Your task to perform on an android device: turn off translation in the chrome app Image 0: 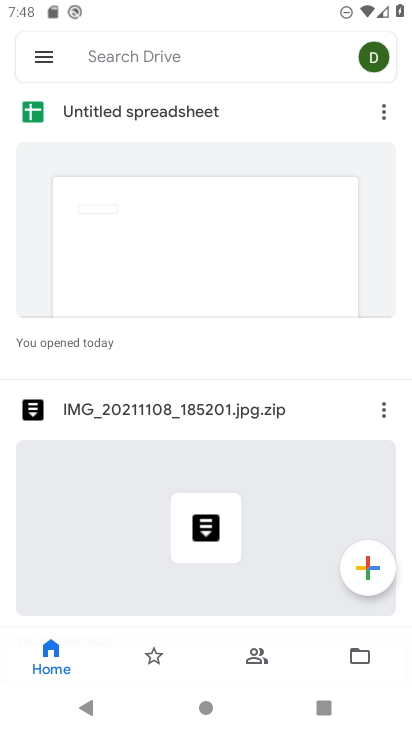
Step 0: press home button
Your task to perform on an android device: turn off translation in the chrome app Image 1: 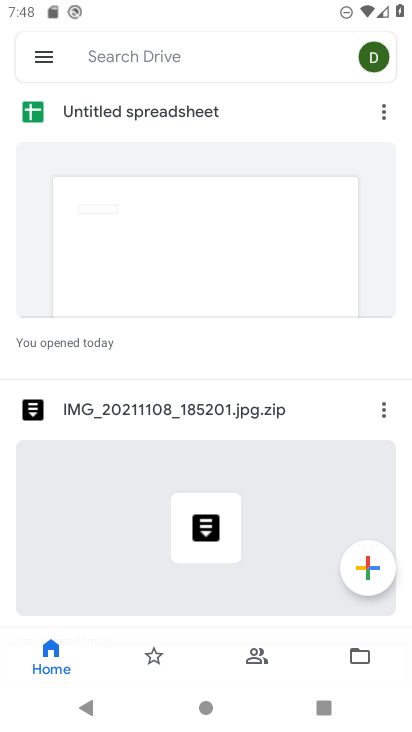
Step 1: press home button
Your task to perform on an android device: turn off translation in the chrome app Image 2: 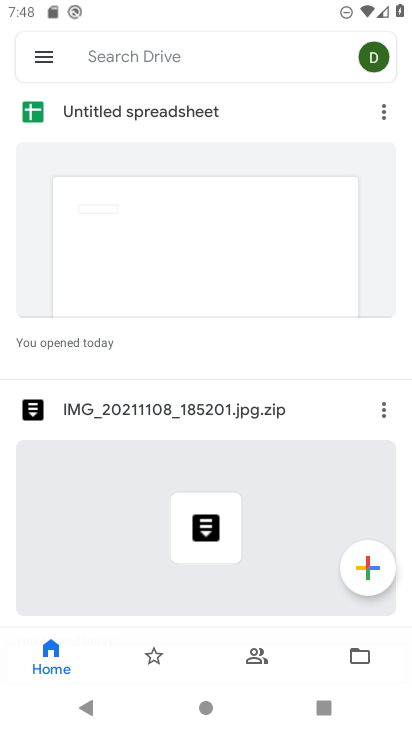
Step 2: drag from (217, 489) to (298, 120)
Your task to perform on an android device: turn off translation in the chrome app Image 3: 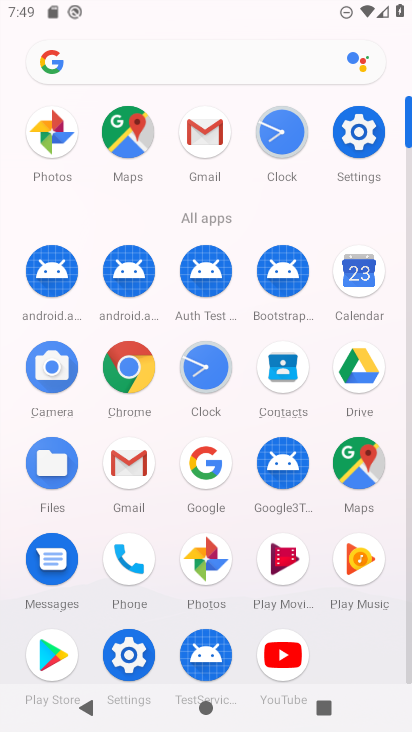
Step 3: click (123, 368)
Your task to perform on an android device: turn off translation in the chrome app Image 4: 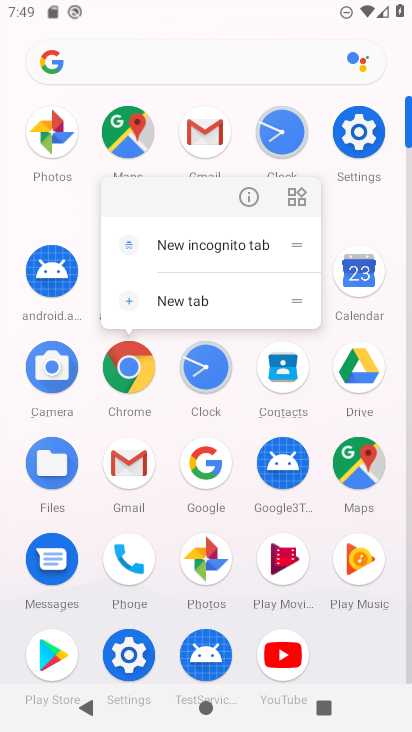
Step 4: click (240, 174)
Your task to perform on an android device: turn off translation in the chrome app Image 5: 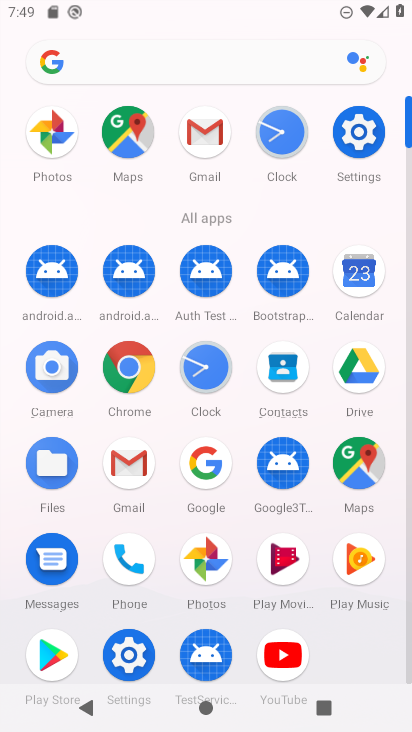
Step 5: click (127, 366)
Your task to perform on an android device: turn off translation in the chrome app Image 6: 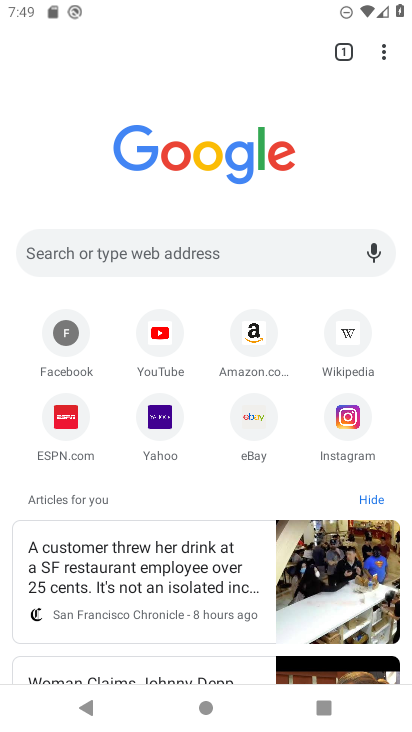
Step 6: click (383, 33)
Your task to perform on an android device: turn off translation in the chrome app Image 7: 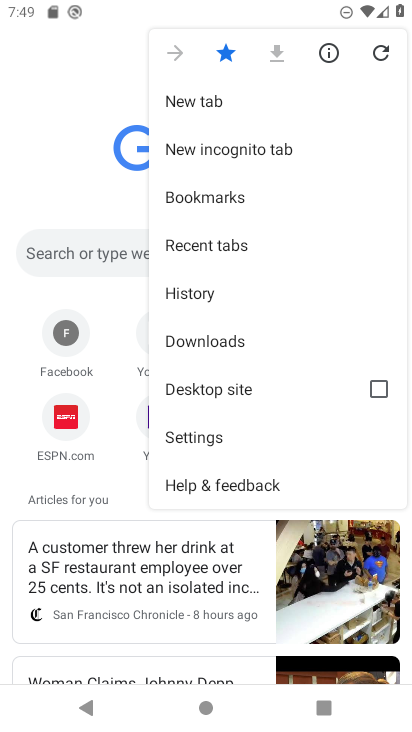
Step 7: click (217, 439)
Your task to perform on an android device: turn off translation in the chrome app Image 8: 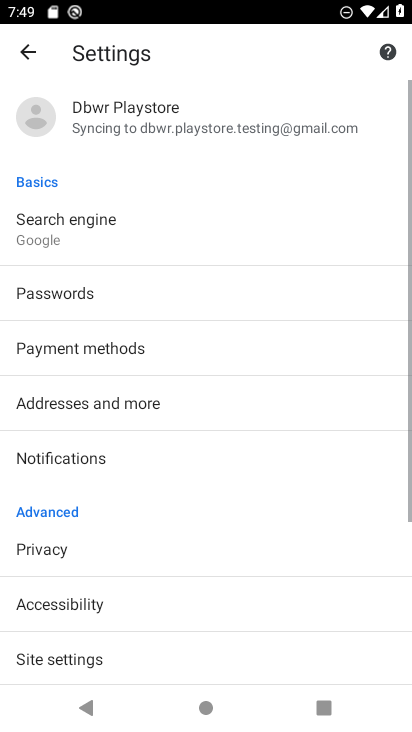
Step 8: drag from (135, 580) to (259, 125)
Your task to perform on an android device: turn off translation in the chrome app Image 9: 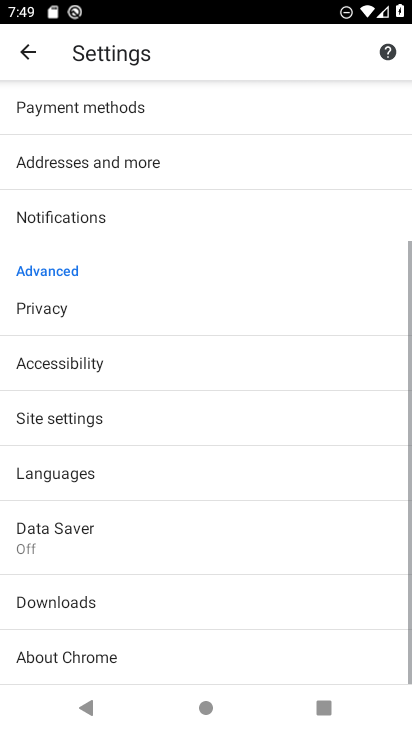
Step 9: click (97, 475)
Your task to perform on an android device: turn off translation in the chrome app Image 10: 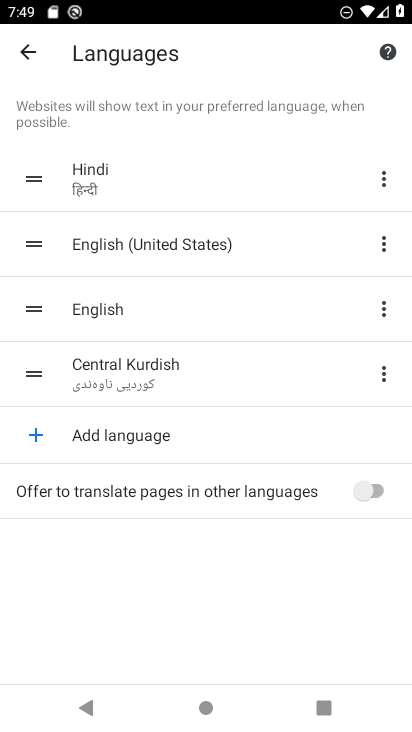
Step 10: task complete